Your task to perform on an android device: Open ESPN.com Image 0: 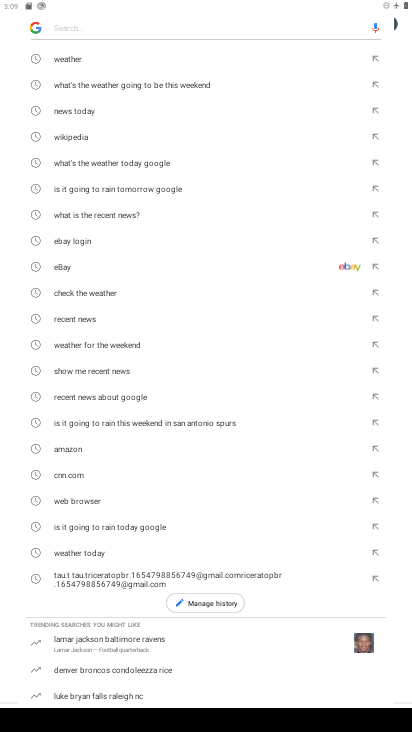
Step 0: press home button
Your task to perform on an android device: Open ESPN.com Image 1: 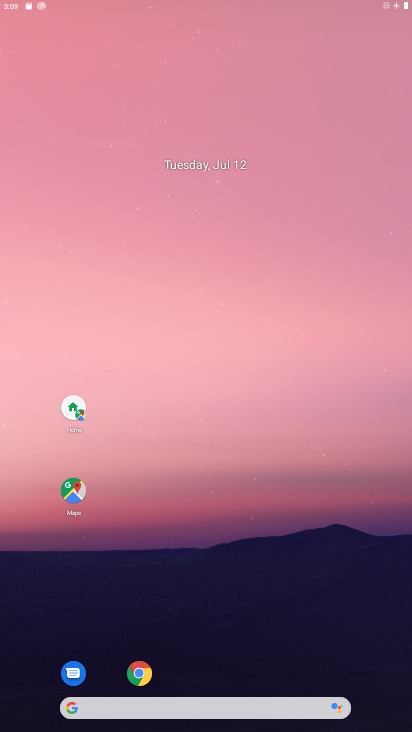
Step 1: drag from (253, 633) to (261, 232)
Your task to perform on an android device: Open ESPN.com Image 2: 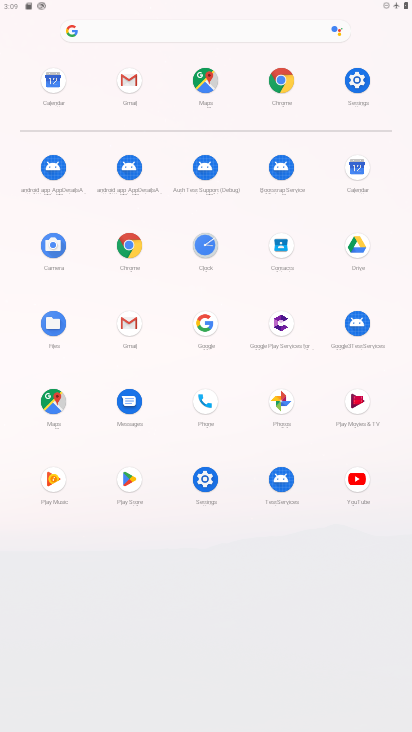
Step 2: click (276, 77)
Your task to perform on an android device: Open ESPN.com Image 3: 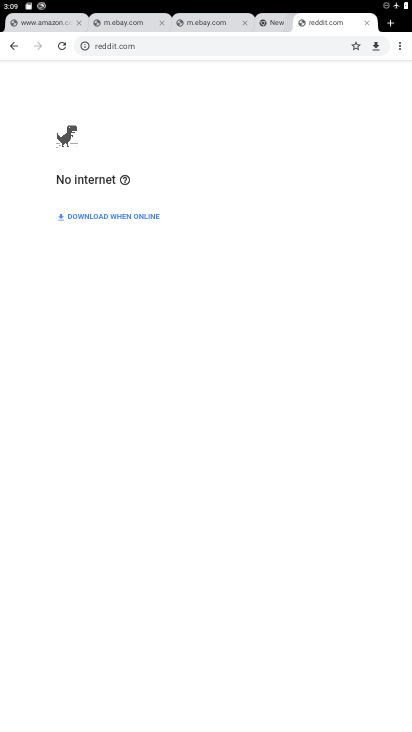
Step 3: click (362, 24)
Your task to perform on an android device: Open ESPN.com Image 4: 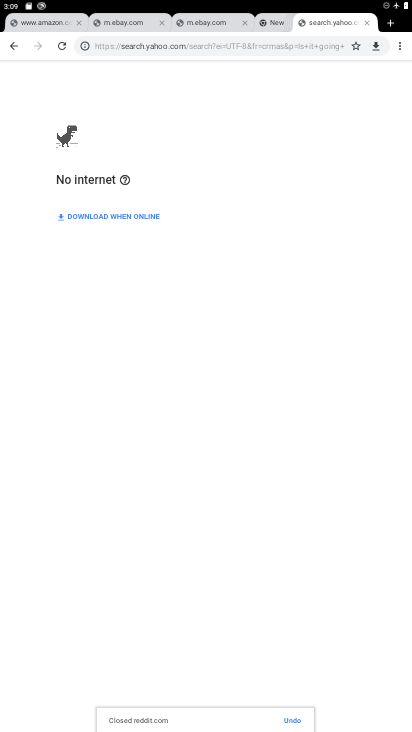
Step 4: click (370, 22)
Your task to perform on an android device: Open ESPN.com Image 5: 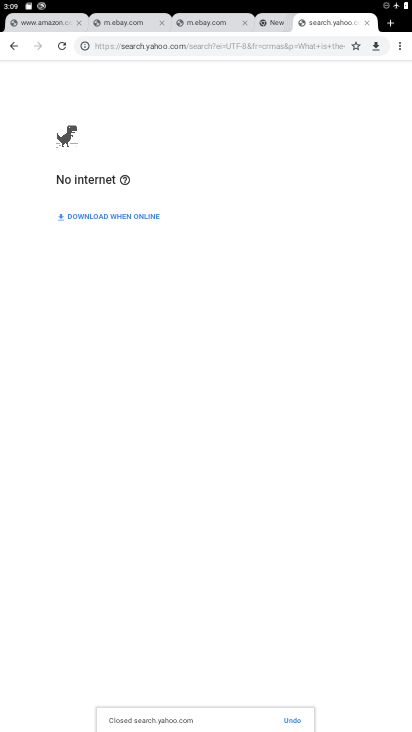
Step 5: click (369, 24)
Your task to perform on an android device: Open ESPN.com Image 6: 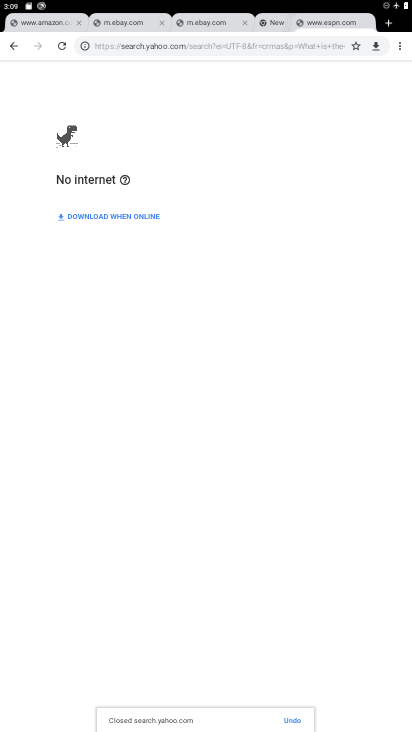
Step 6: click (369, 24)
Your task to perform on an android device: Open ESPN.com Image 7: 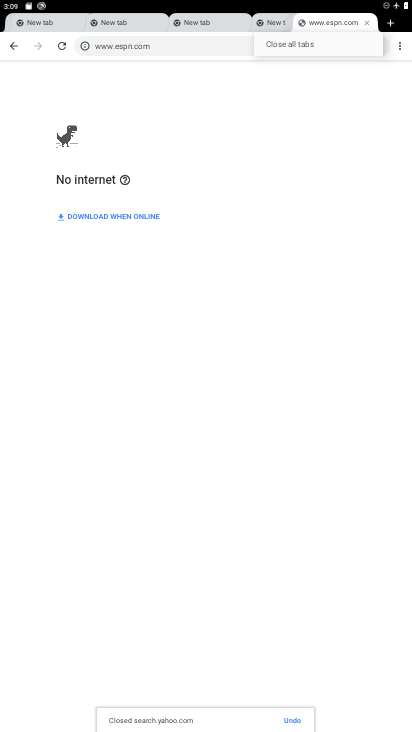
Step 7: click (363, 22)
Your task to perform on an android device: Open ESPN.com Image 8: 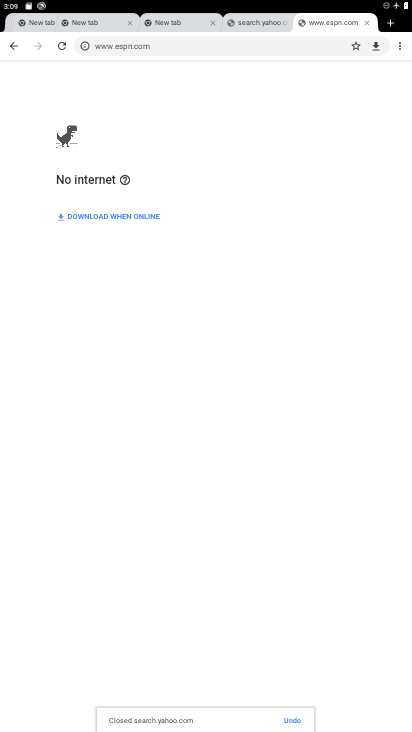
Step 8: click (393, 18)
Your task to perform on an android device: Open ESPN.com Image 9: 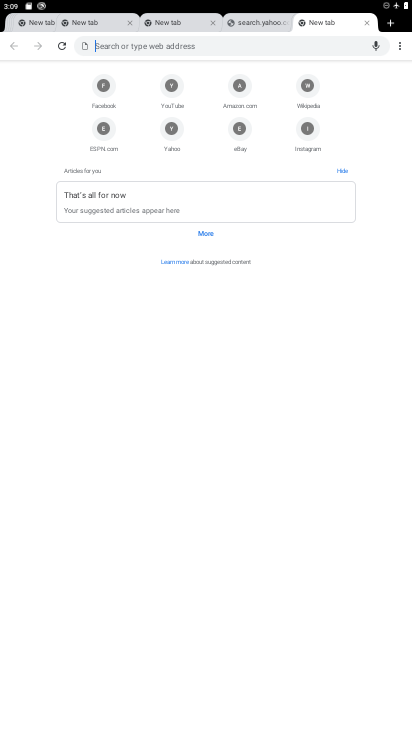
Step 9: click (387, 20)
Your task to perform on an android device: Open ESPN.com Image 10: 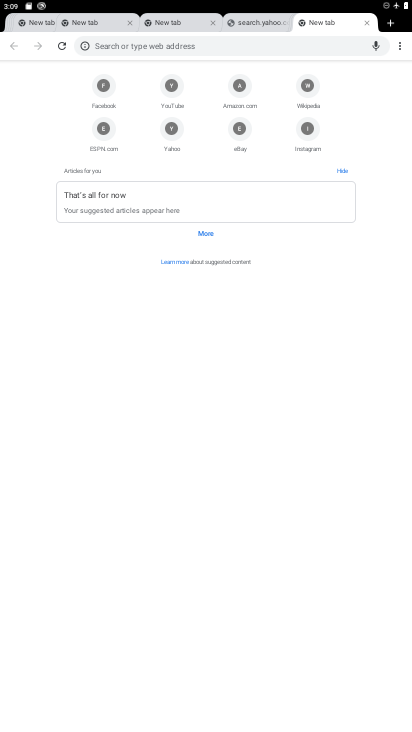
Step 10: click (105, 144)
Your task to perform on an android device: Open ESPN.com Image 11: 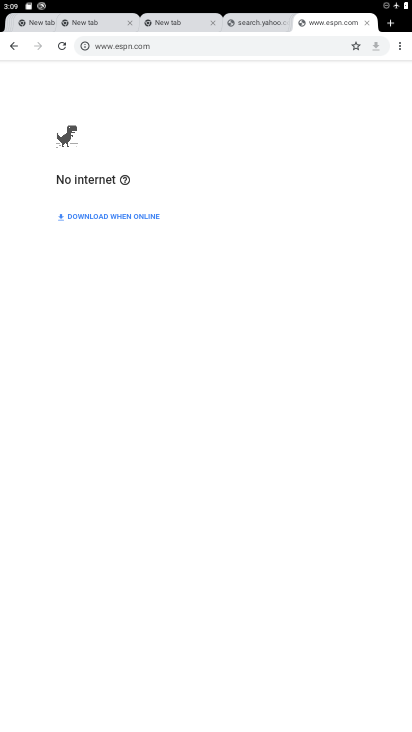
Step 11: task complete